Your task to perform on an android device: Go to wifi settings Image 0: 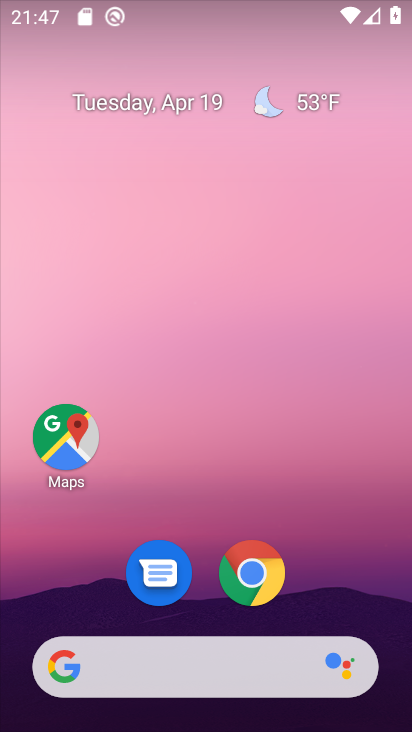
Step 0: drag from (207, 616) to (227, 97)
Your task to perform on an android device: Go to wifi settings Image 1: 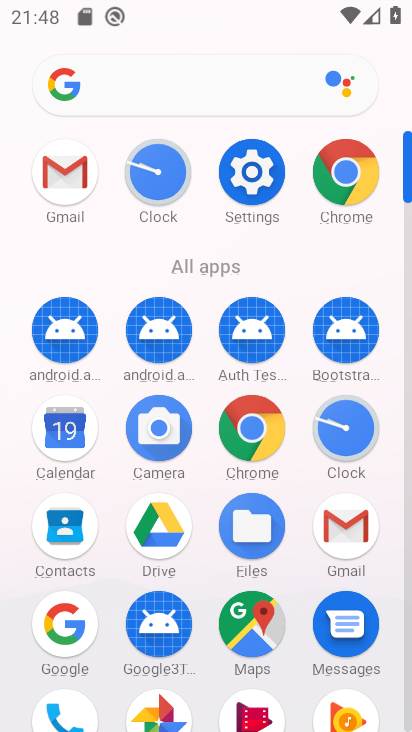
Step 1: click (248, 168)
Your task to perform on an android device: Go to wifi settings Image 2: 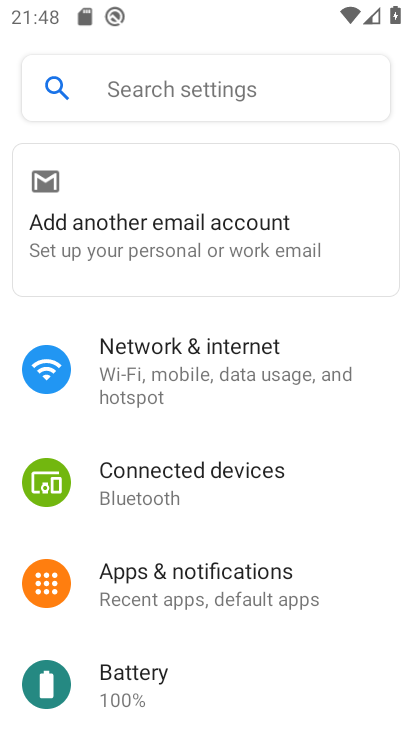
Step 2: click (130, 359)
Your task to perform on an android device: Go to wifi settings Image 3: 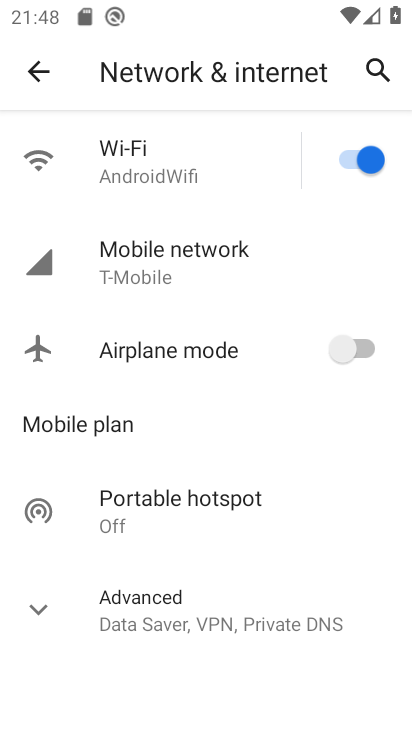
Step 3: click (237, 154)
Your task to perform on an android device: Go to wifi settings Image 4: 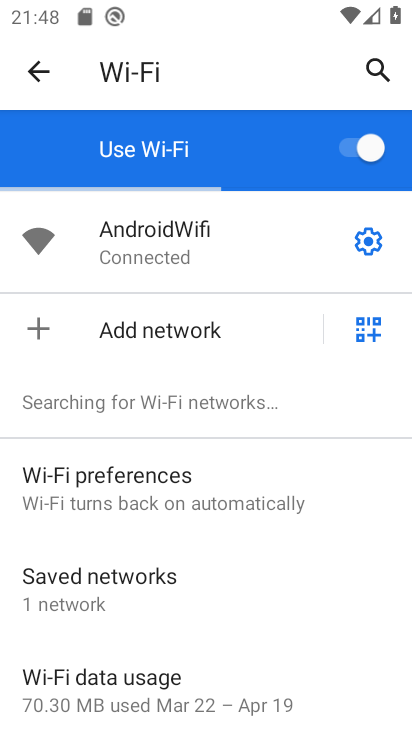
Step 4: task complete